Your task to perform on an android device: Open Amazon Image 0: 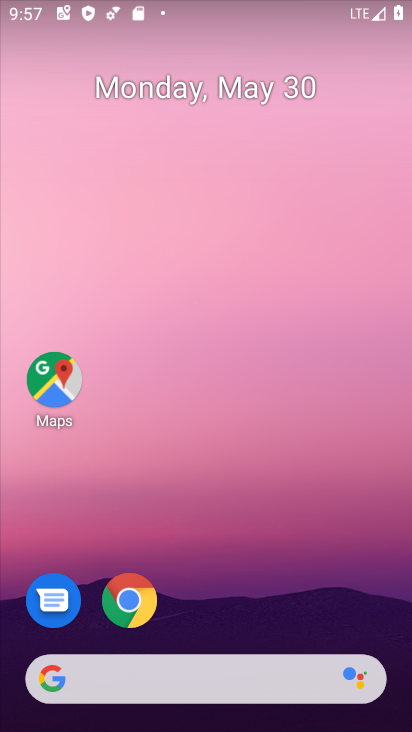
Step 0: click (268, 678)
Your task to perform on an android device: Open Amazon Image 1: 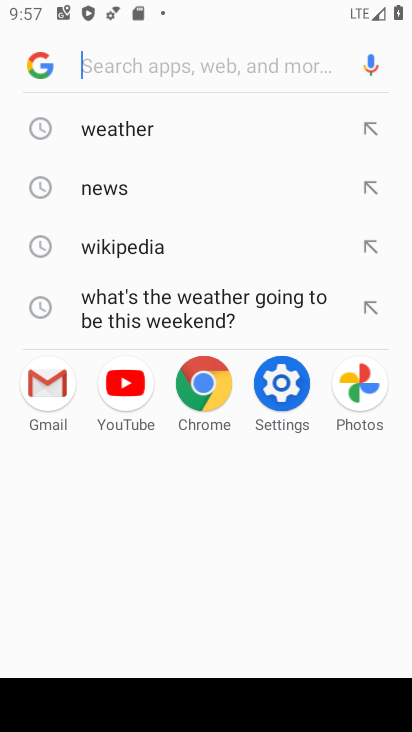
Step 1: type "Amazon"
Your task to perform on an android device: Open Amazon Image 2: 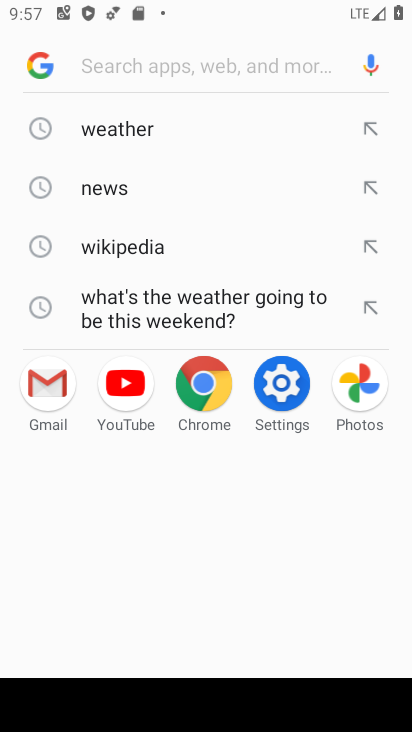
Step 2: click (171, 73)
Your task to perform on an android device: Open Amazon Image 3: 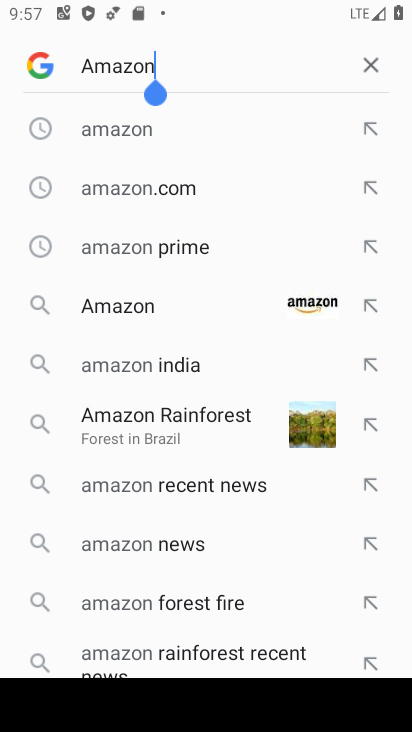
Step 3: click (126, 312)
Your task to perform on an android device: Open Amazon Image 4: 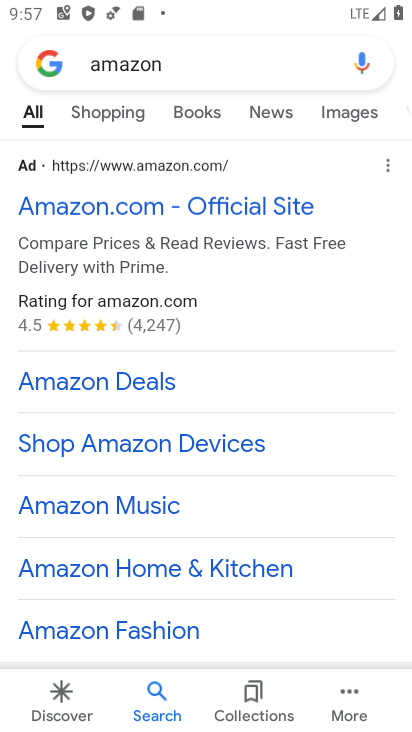
Step 4: drag from (329, 626) to (281, 162)
Your task to perform on an android device: Open Amazon Image 5: 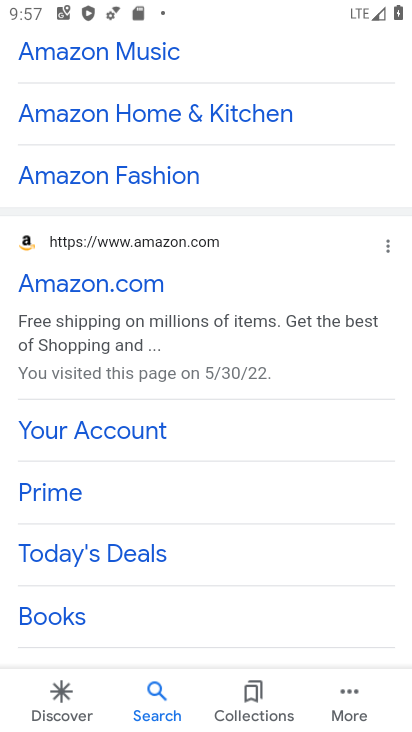
Step 5: click (50, 286)
Your task to perform on an android device: Open Amazon Image 6: 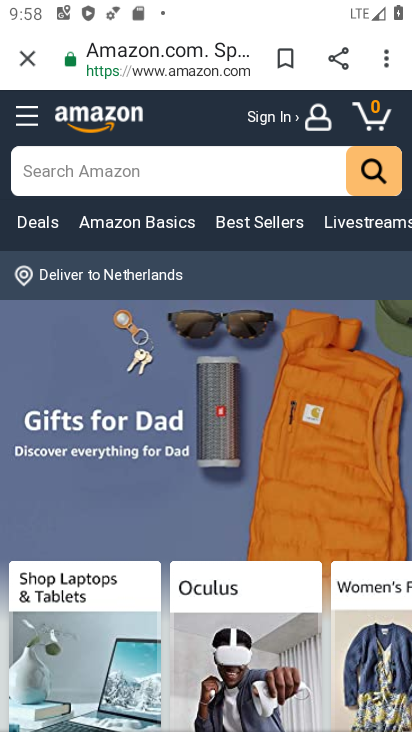
Step 6: task complete